Your task to perform on an android device: Go to settings Image 0: 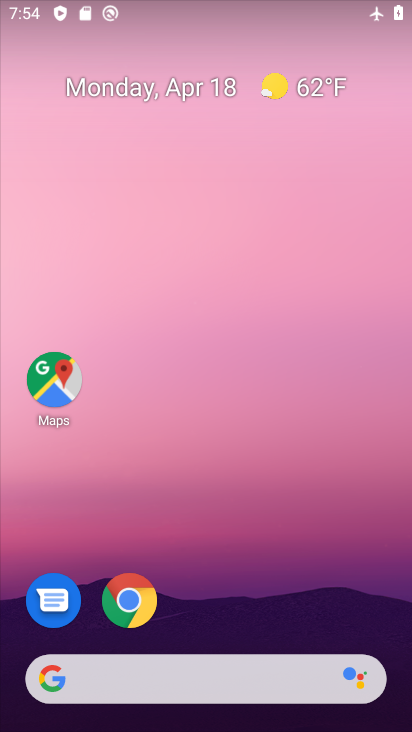
Step 0: drag from (221, 649) to (175, 16)
Your task to perform on an android device: Go to settings Image 1: 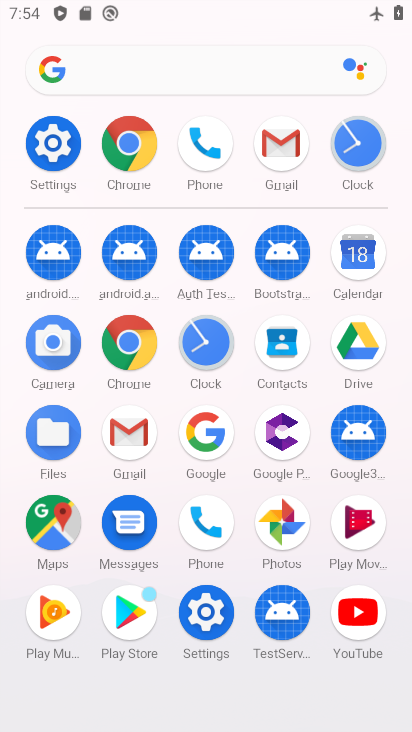
Step 1: click (209, 608)
Your task to perform on an android device: Go to settings Image 2: 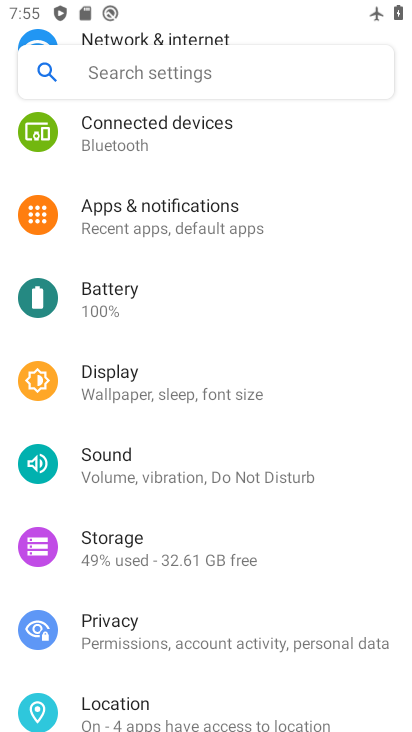
Step 2: task complete